Your task to perform on an android device: turn off sleep mode Image 0: 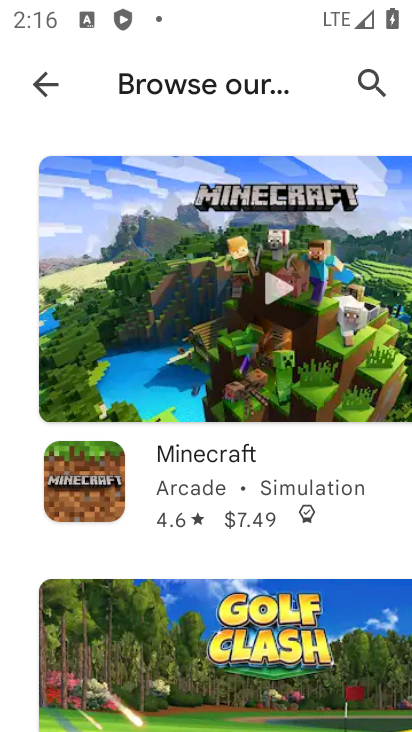
Step 0: press home button
Your task to perform on an android device: turn off sleep mode Image 1: 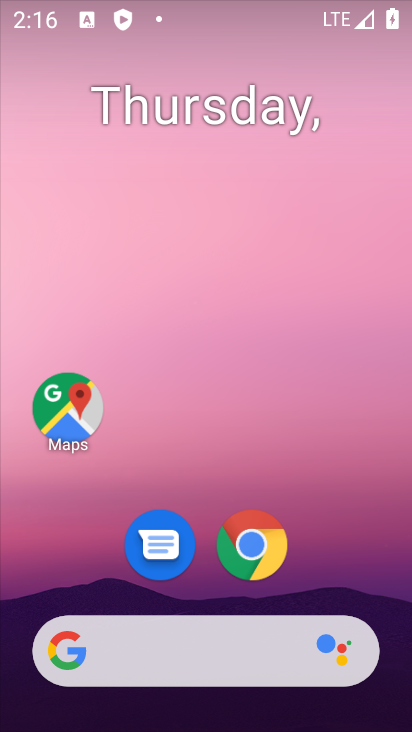
Step 1: drag from (269, 576) to (287, 6)
Your task to perform on an android device: turn off sleep mode Image 2: 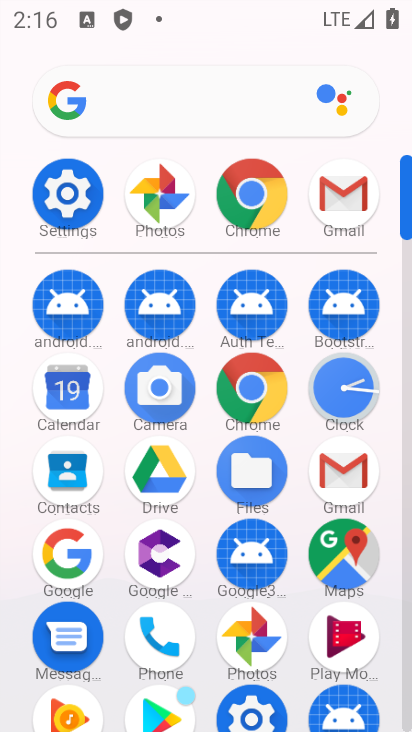
Step 2: click (81, 192)
Your task to perform on an android device: turn off sleep mode Image 3: 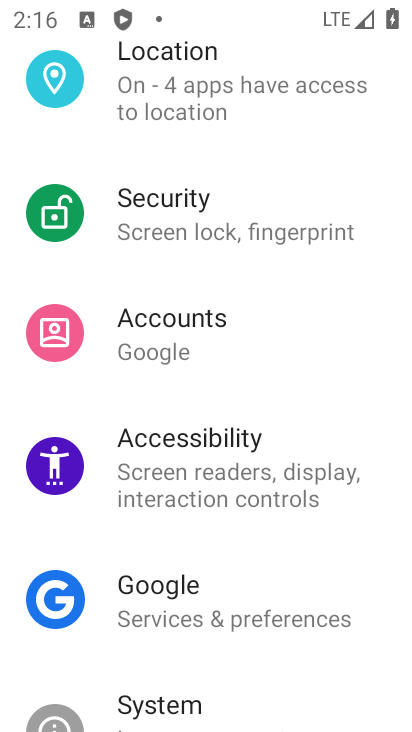
Step 3: task complete